Your task to perform on an android device: snooze an email in the gmail app Image 0: 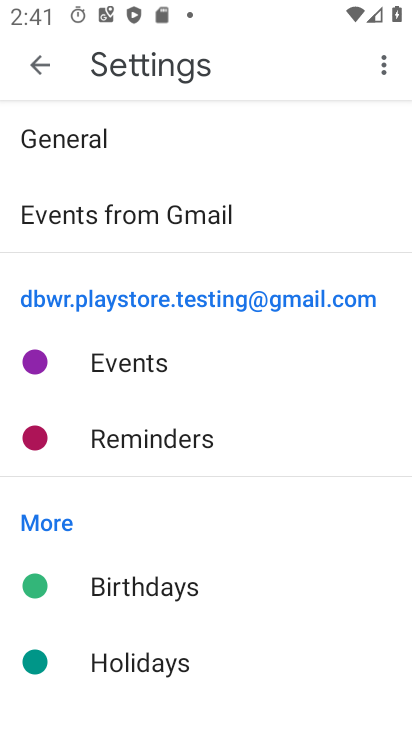
Step 0: press back button
Your task to perform on an android device: snooze an email in the gmail app Image 1: 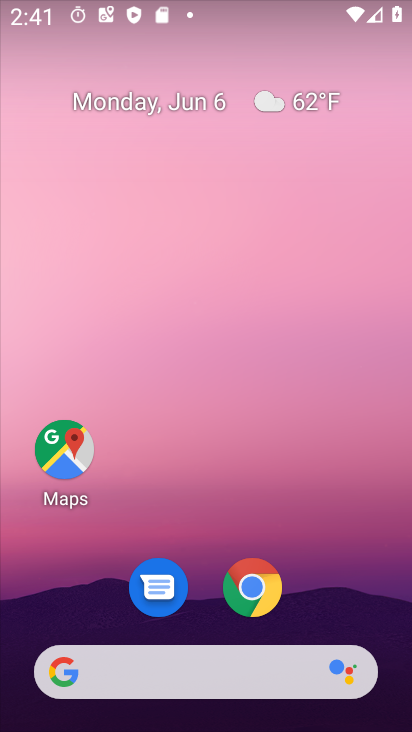
Step 1: drag from (297, 570) to (268, 18)
Your task to perform on an android device: snooze an email in the gmail app Image 2: 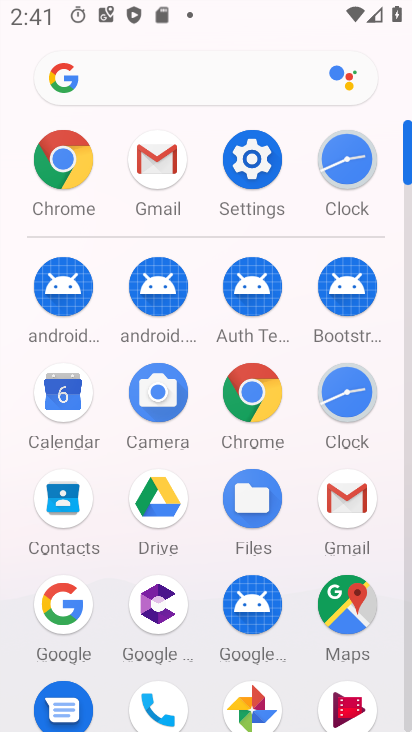
Step 2: click (155, 156)
Your task to perform on an android device: snooze an email in the gmail app Image 3: 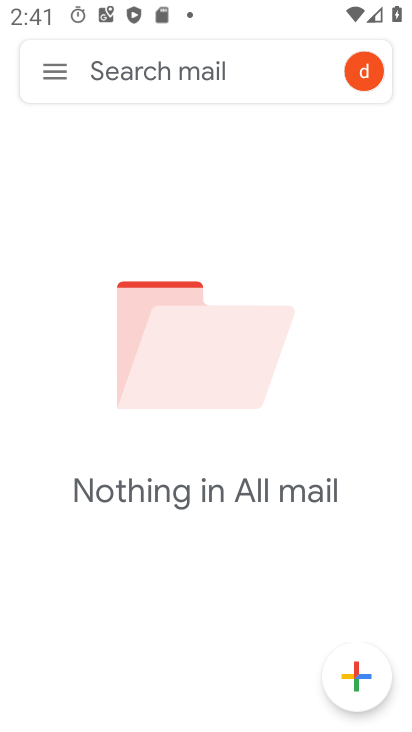
Step 3: click (57, 65)
Your task to perform on an android device: snooze an email in the gmail app Image 4: 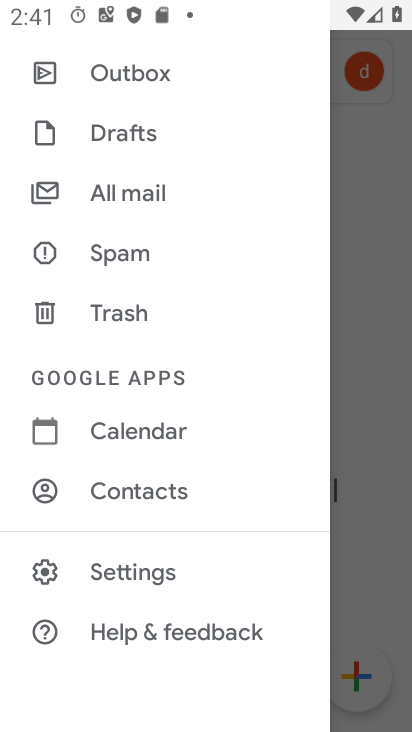
Step 4: drag from (189, 84) to (201, 518)
Your task to perform on an android device: snooze an email in the gmail app Image 5: 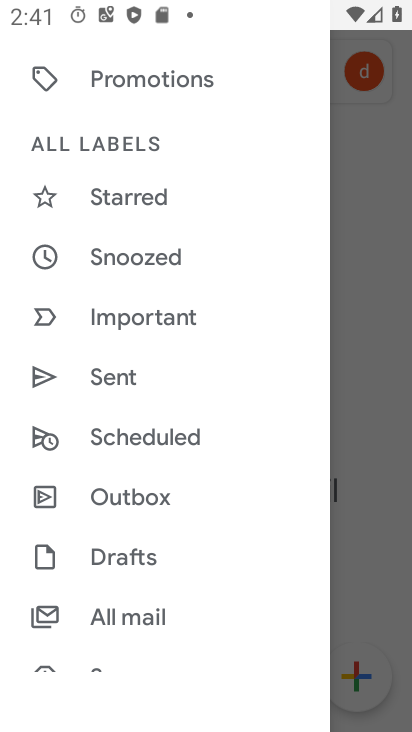
Step 5: click (175, 259)
Your task to perform on an android device: snooze an email in the gmail app Image 6: 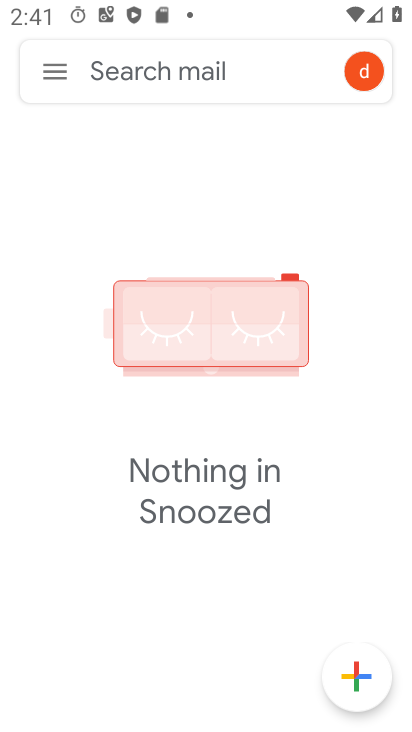
Step 6: task complete